Your task to perform on an android device: View the shopping cart on bestbuy. Add razer kraken to the cart on bestbuy Image 0: 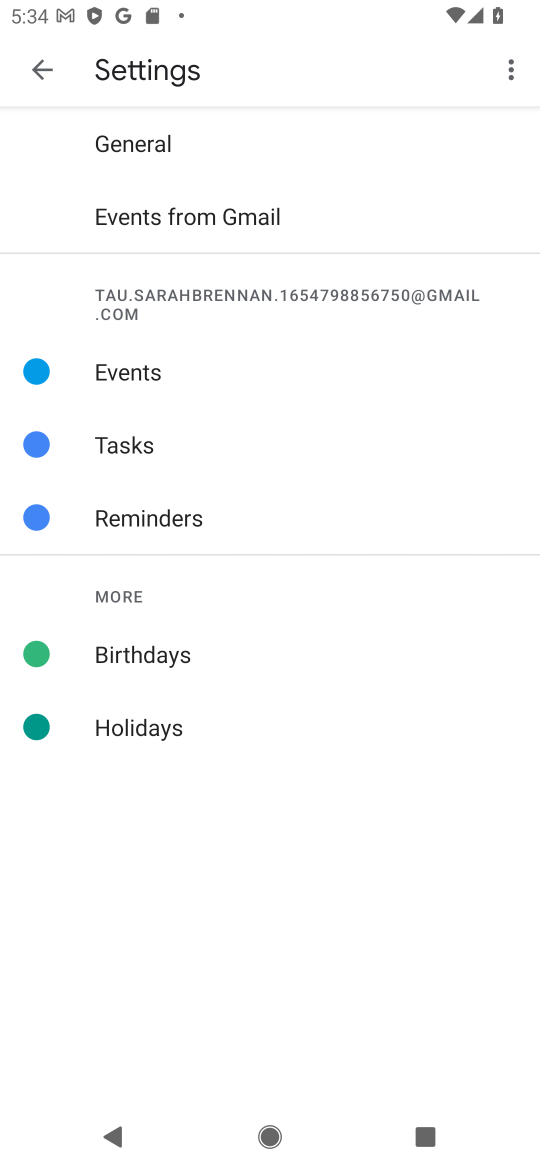
Step 0: press home button
Your task to perform on an android device: View the shopping cart on bestbuy. Add razer kraken to the cart on bestbuy Image 1: 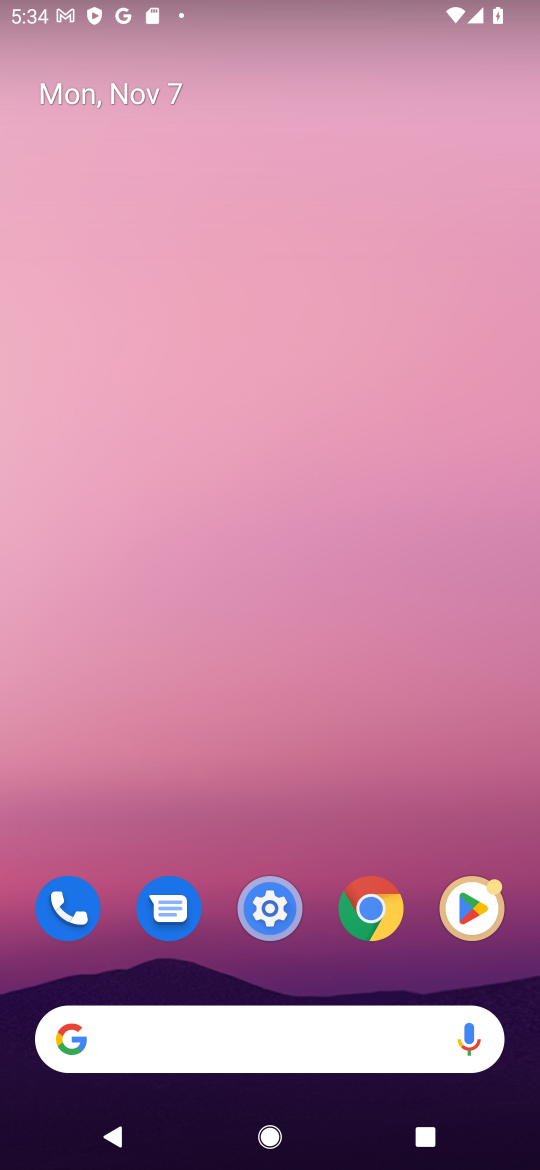
Step 1: click (323, 1049)
Your task to perform on an android device: View the shopping cart on bestbuy. Add razer kraken to the cart on bestbuy Image 2: 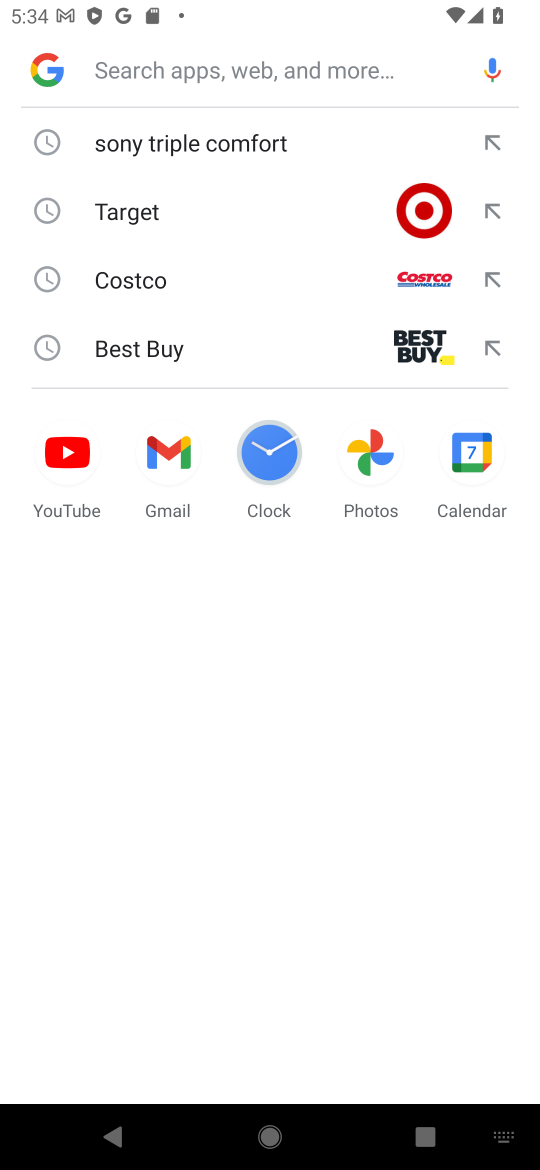
Step 2: click (151, 353)
Your task to perform on an android device: View the shopping cart on bestbuy. Add razer kraken to the cart on bestbuy Image 3: 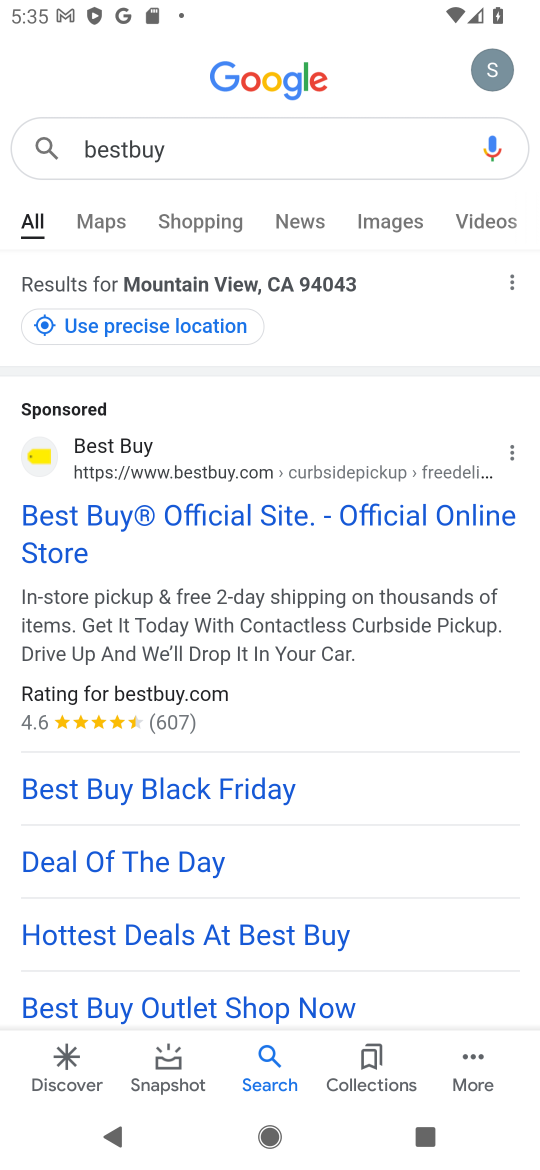
Step 3: click (163, 537)
Your task to perform on an android device: View the shopping cart on bestbuy. Add razer kraken to the cart on bestbuy Image 4: 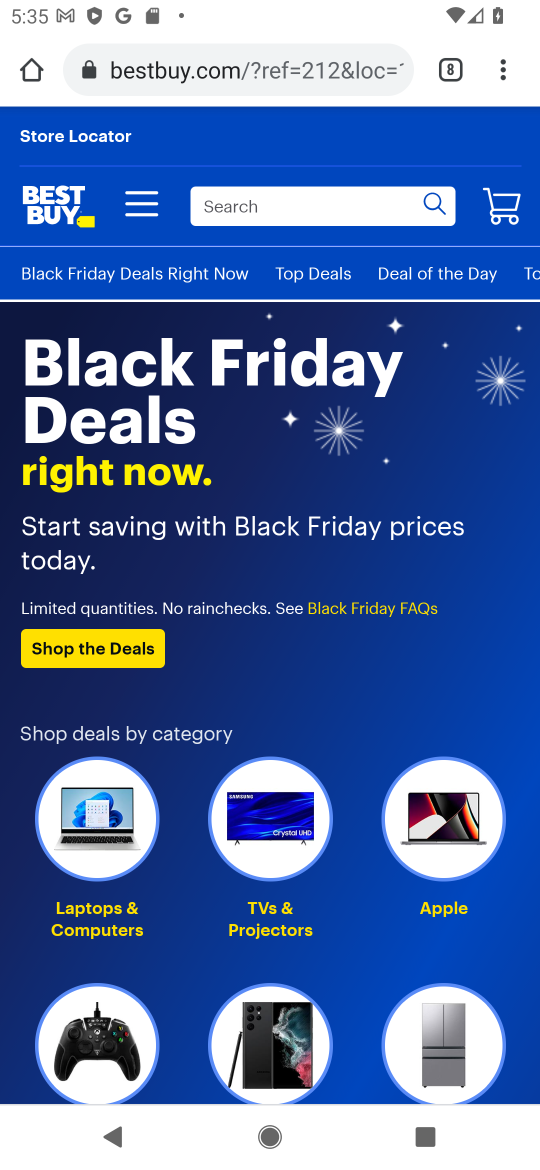
Step 4: click (273, 228)
Your task to perform on an android device: View the shopping cart on bestbuy. Add razer kraken to the cart on bestbuy Image 5: 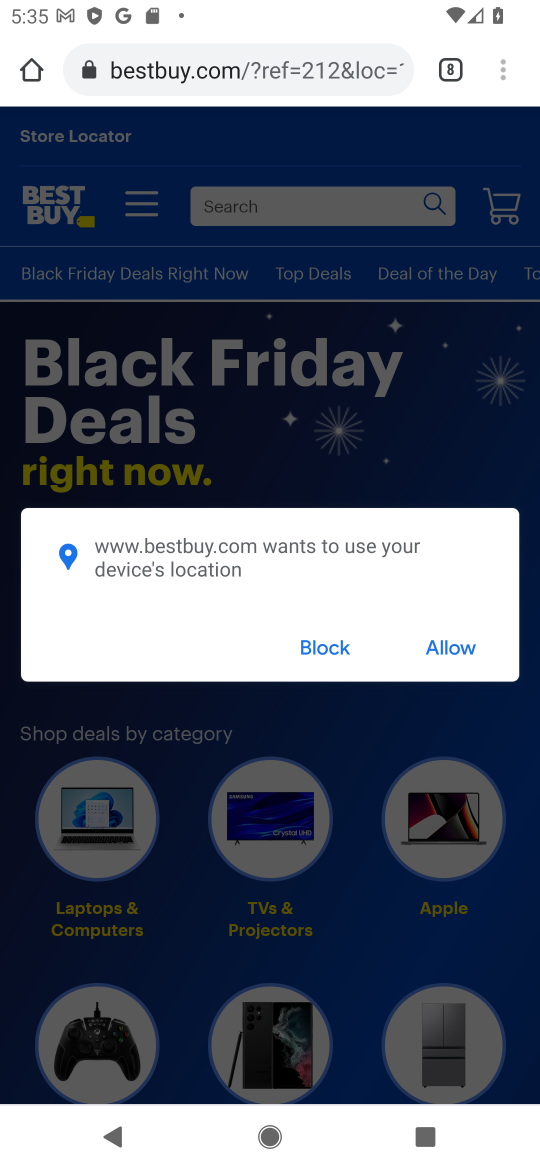
Step 5: type "razer"
Your task to perform on an android device: View the shopping cart on bestbuy. Add razer kraken to the cart on bestbuy Image 6: 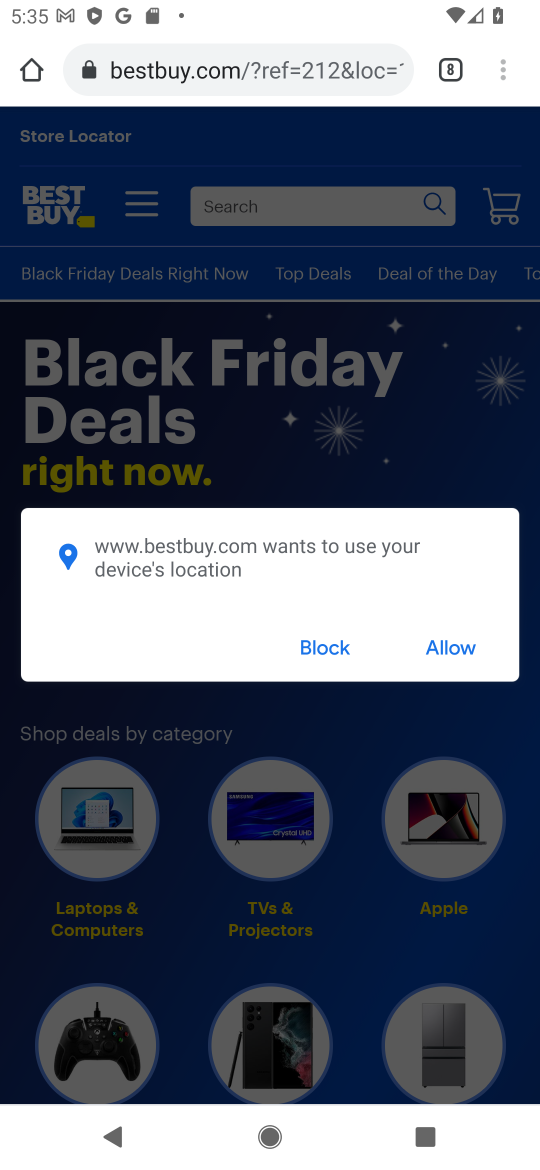
Step 6: click (326, 660)
Your task to perform on an android device: View the shopping cart on bestbuy. Add razer kraken to the cart on bestbuy Image 7: 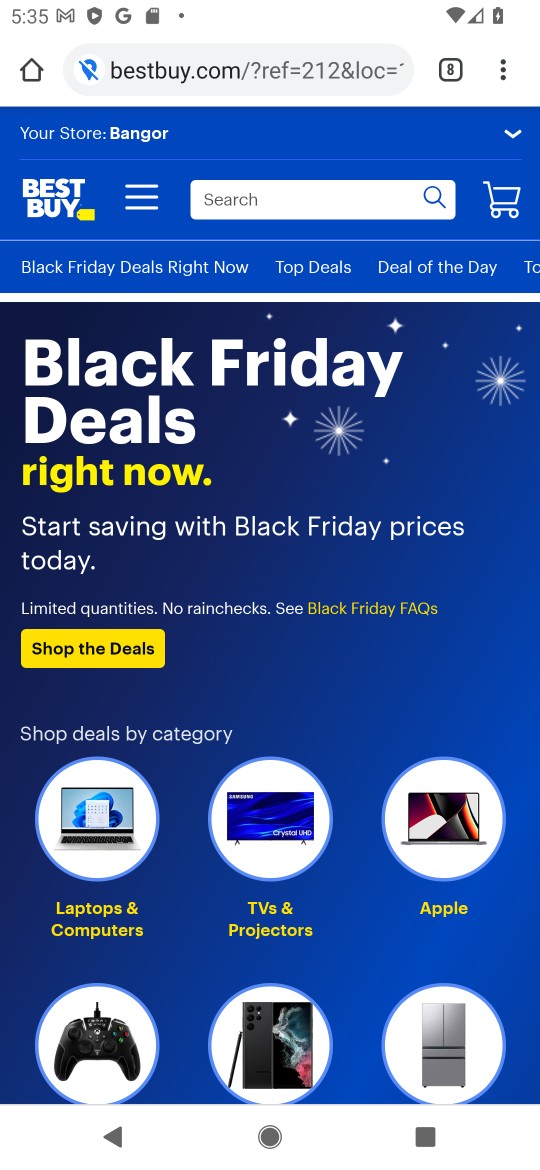
Step 7: task complete